Your task to perform on an android device: Open Wikipedia Image 0: 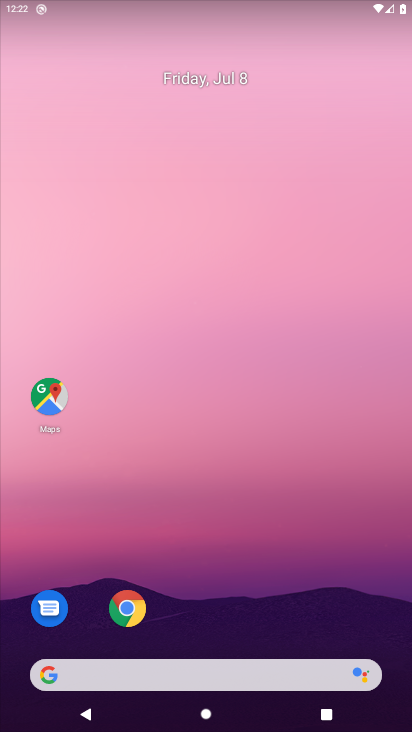
Step 0: click (115, 626)
Your task to perform on an android device: Open Wikipedia Image 1: 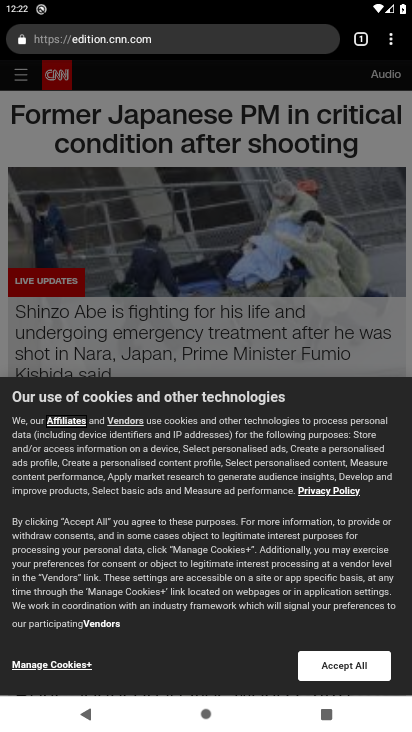
Step 1: click (80, 48)
Your task to perform on an android device: Open Wikipedia Image 2: 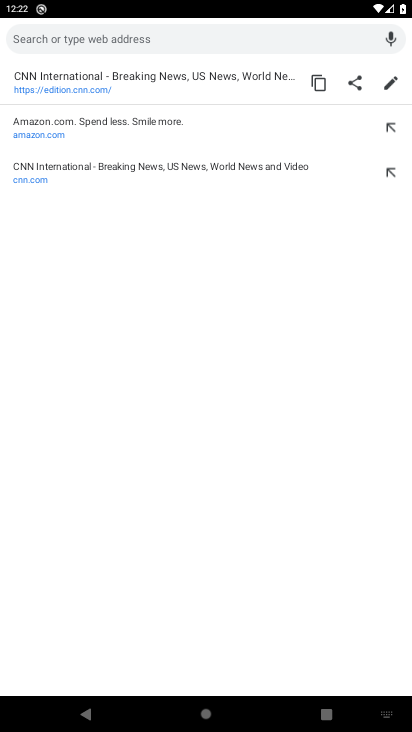
Step 2: type " Wikipedia"
Your task to perform on an android device: Open Wikipedia Image 3: 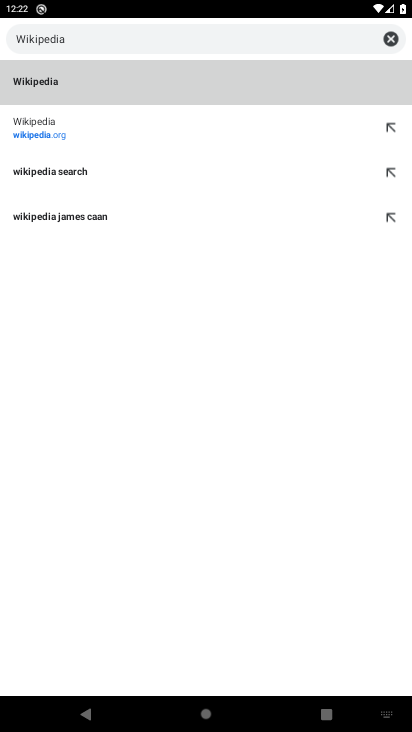
Step 3: click (28, 132)
Your task to perform on an android device: Open Wikipedia Image 4: 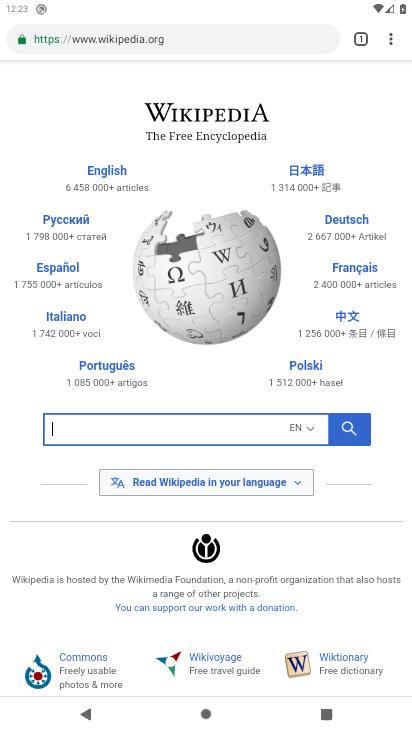
Step 4: task complete